Your task to perform on an android device: Open Chrome and go to the settings page Image 0: 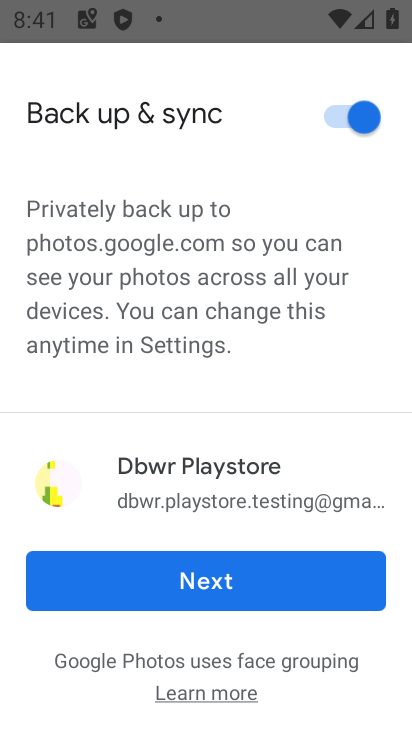
Step 0: press home button
Your task to perform on an android device: Open Chrome and go to the settings page Image 1: 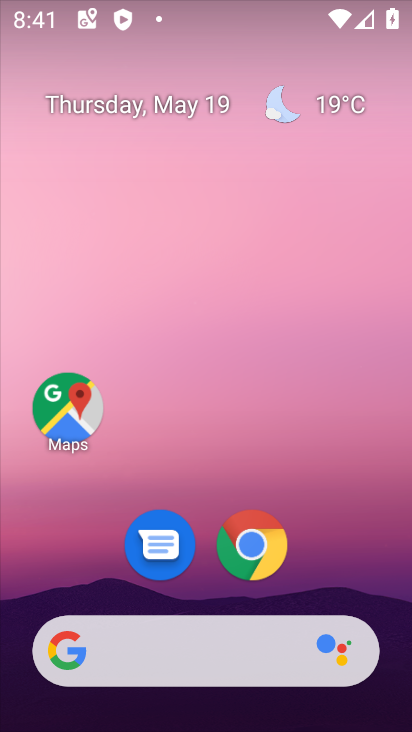
Step 1: click (254, 539)
Your task to perform on an android device: Open Chrome and go to the settings page Image 2: 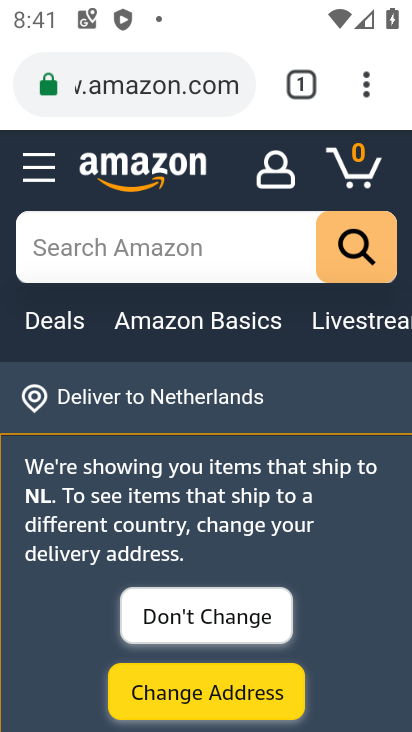
Step 2: click (371, 76)
Your task to perform on an android device: Open Chrome and go to the settings page Image 3: 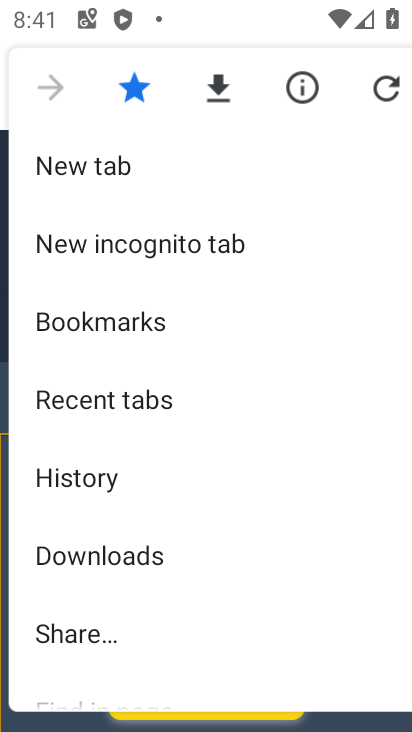
Step 3: drag from (146, 620) to (142, 444)
Your task to perform on an android device: Open Chrome and go to the settings page Image 4: 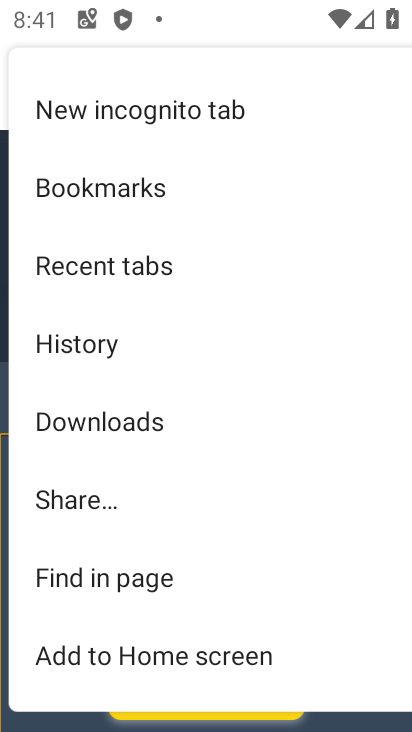
Step 4: click (142, 444)
Your task to perform on an android device: Open Chrome and go to the settings page Image 5: 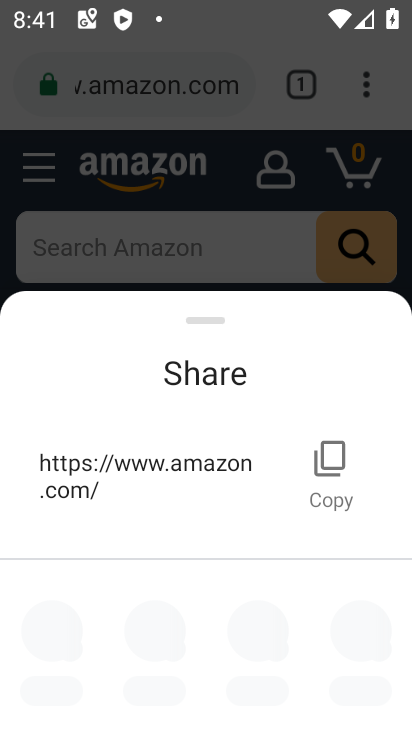
Step 5: click (377, 89)
Your task to perform on an android device: Open Chrome and go to the settings page Image 6: 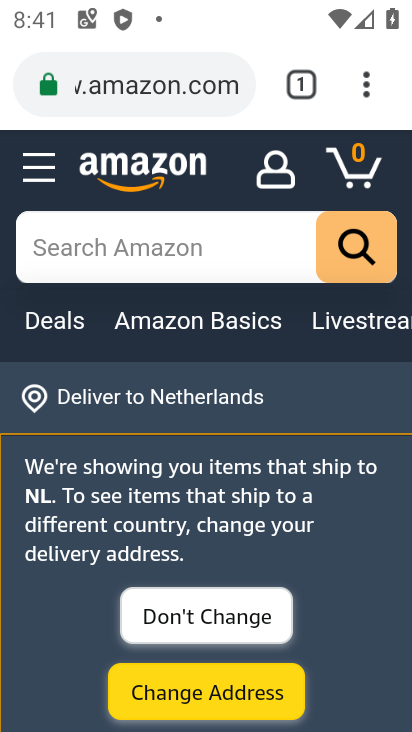
Step 6: click (377, 89)
Your task to perform on an android device: Open Chrome and go to the settings page Image 7: 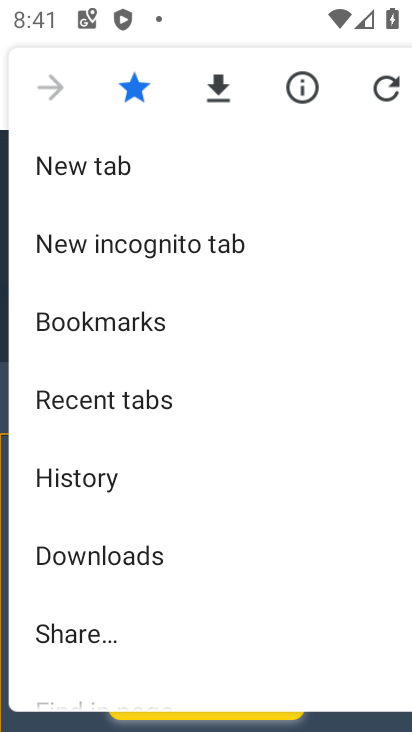
Step 7: drag from (138, 692) to (157, 170)
Your task to perform on an android device: Open Chrome and go to the settings page Image 8: 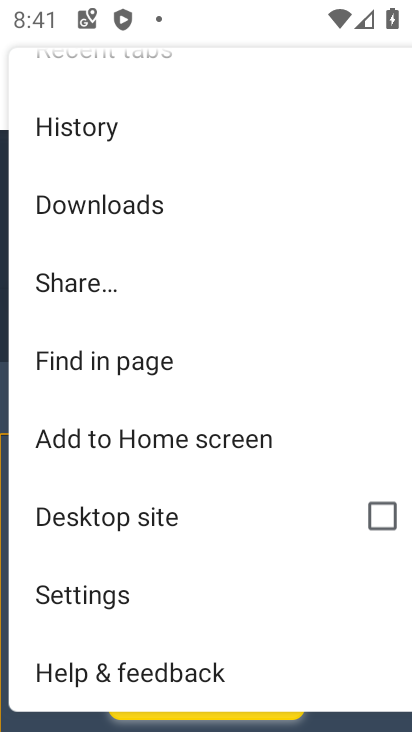
Step 8: click (139, 603)
Your task to perform on an android device: Open Chrome and go to the settings page Image 9: 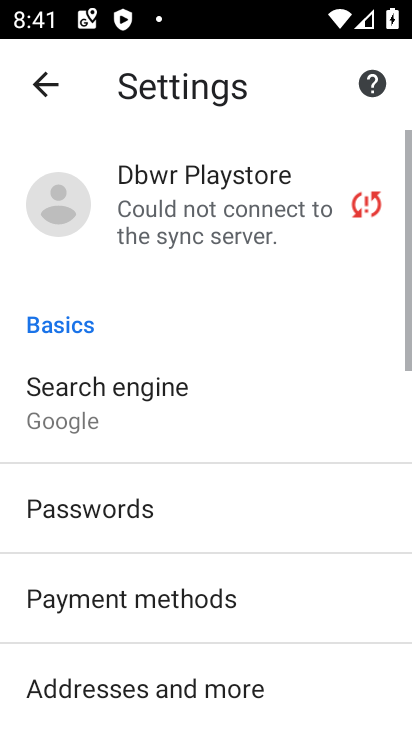
Step 9: task complete